Your task to perform on an android device: Is it going to rain this weekend? Image 0: 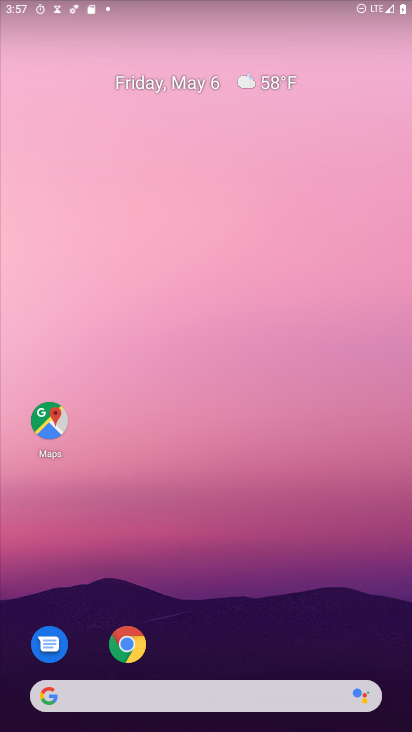
Step 0: click (246, 80)
Your task to perform on an android device: Is it going to rain this weekend? Image 1: 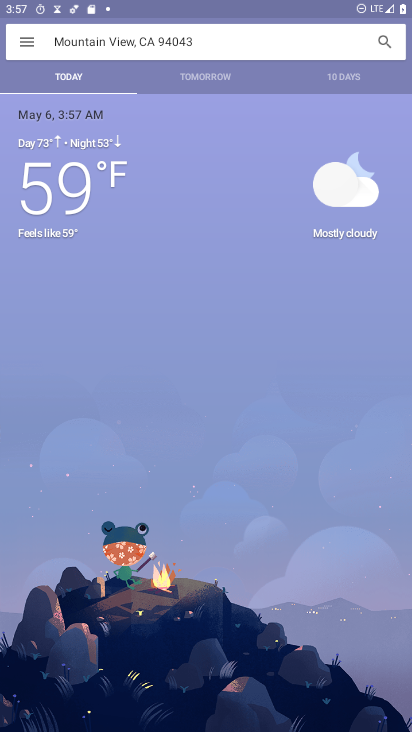
Step 1: click (330, 80)
Your task to perform on an android device: Is it going to rain this weekend? Image 2: 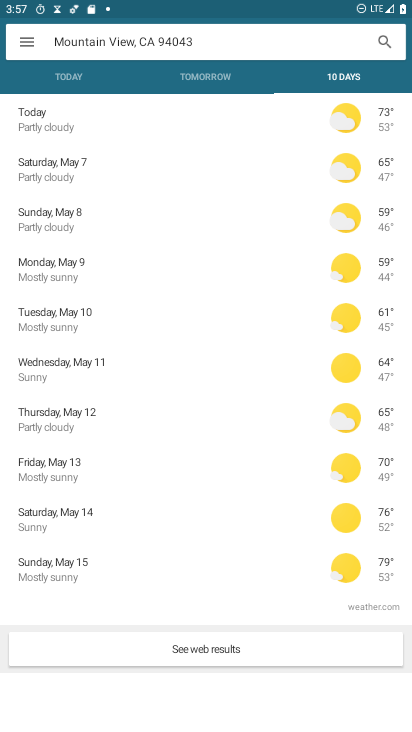
Step 2: click (42, 511)
Your task to perform on an android device: Is it going to rain this weekend? Image 3: 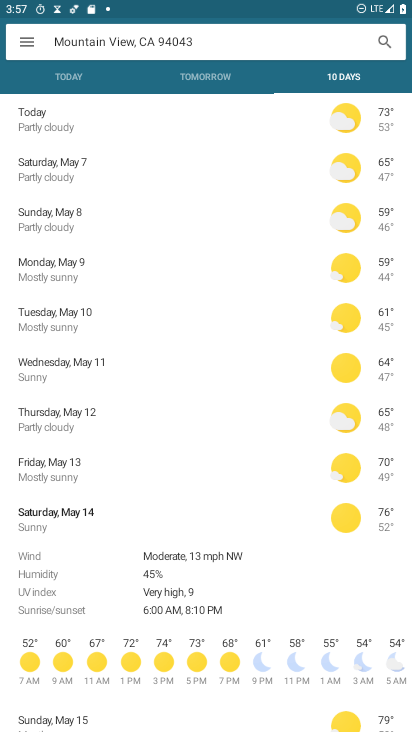
Step 3: task complete